Your task to perform on an android device: Open eBay Image 0: 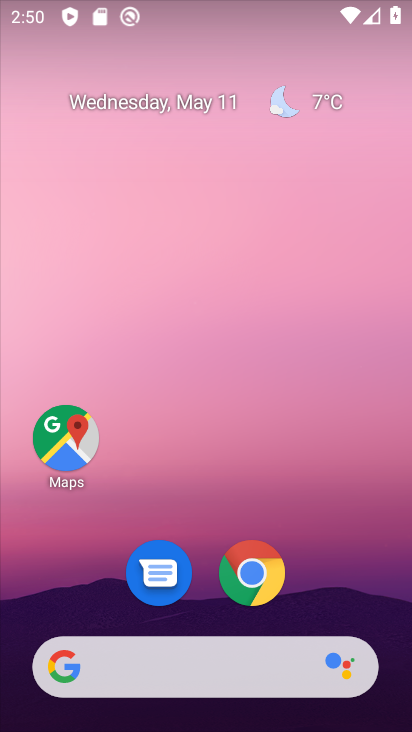
Step 0: click (240, 576)
Your task to perform on an android device: Open eBay Image 1: 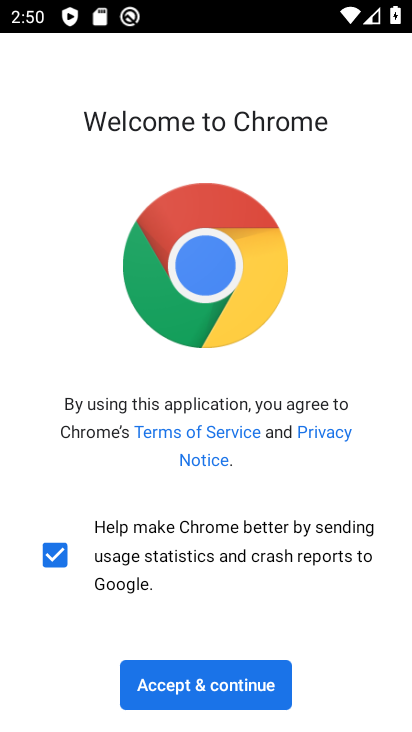
Step 1: click (204, 686)
Your task to perform on an android device: Open eBay Image 2: 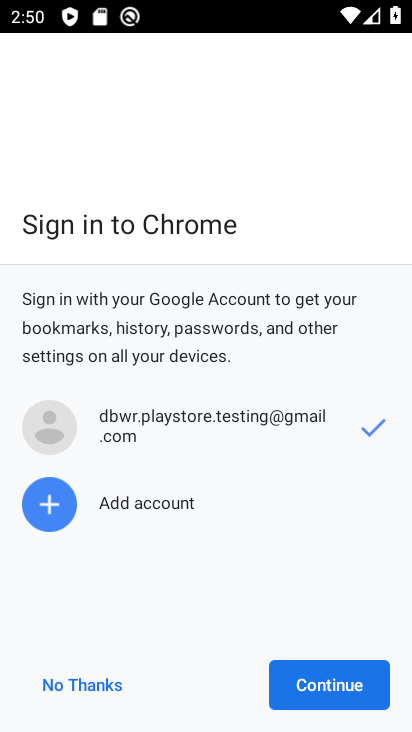
Step 2: click (309, 671)
Your task to perform on an android device: Open eBay Image 3: 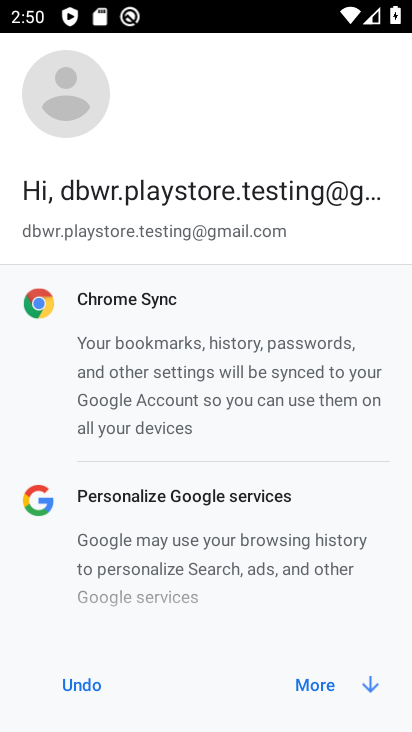
Step 3: click (303, 702)
Your task to perform on an android device: Open eBay Image 4: 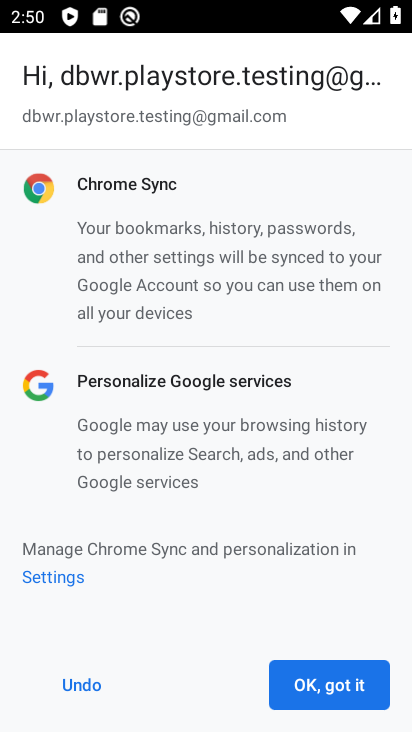
Step 4: click (313, 693)
Your task to perform on an android device: Open eBay Image 5: 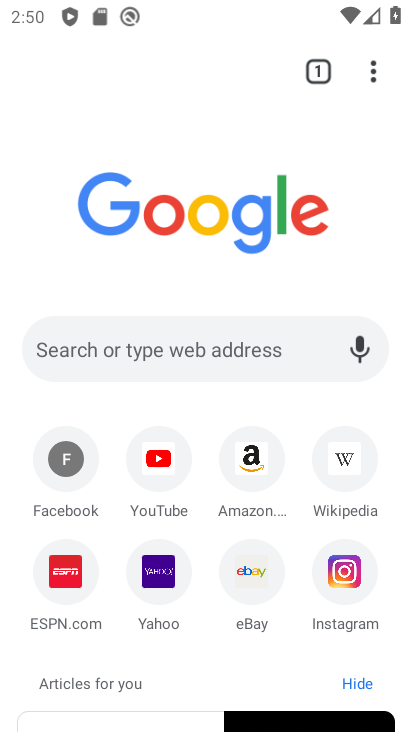
Step 5: click (254, 557)
Your task to perform on an android device: Open eBay Image 6: 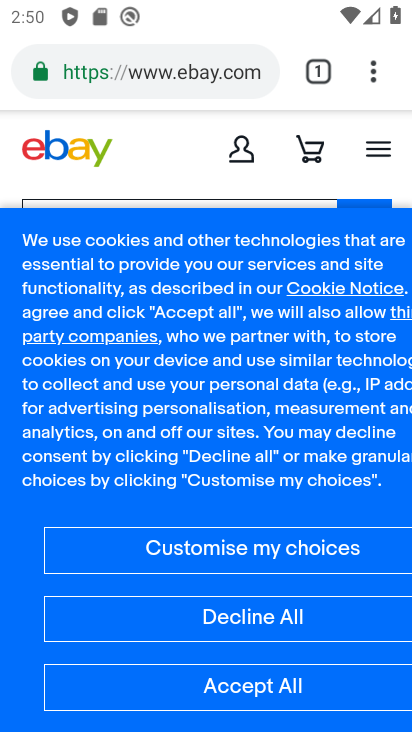
Step 6: task complete